Your task to perform on an android device: turn off improve location accuracy Image 0: 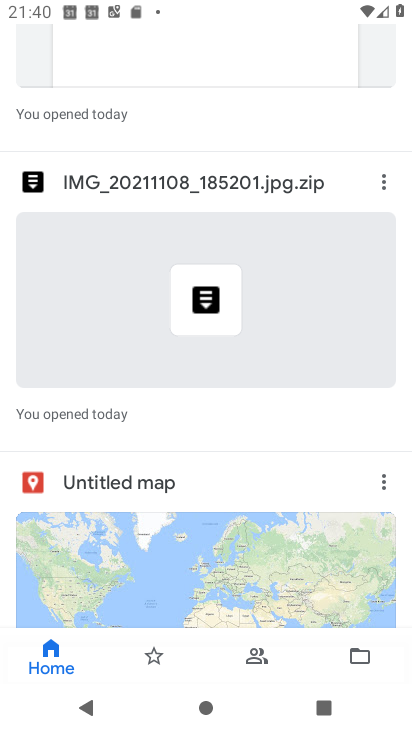
Step 0: drag from (184, 575) to (301, 177)
Your task to perform on an android device: turn off improve location accuracy Image 1: 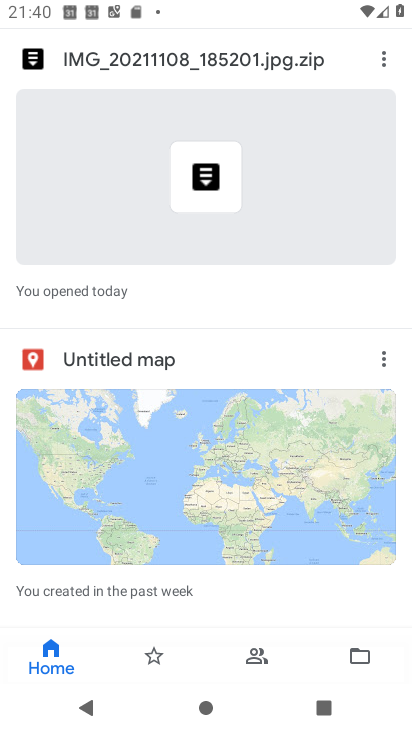
Step 1: drag from (171, 304) to (233, 665)
Your task to perform on an android device: turn off improve location accuracy Image 2: 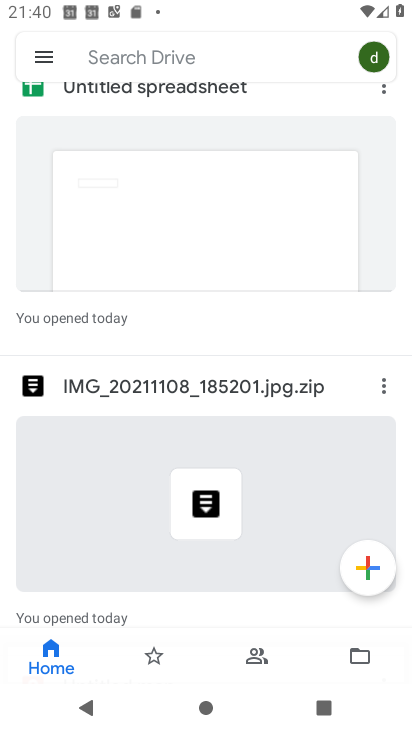
Step 2: press home button
Your task to perform on an android device: turn off improve location accuracy Image 3: 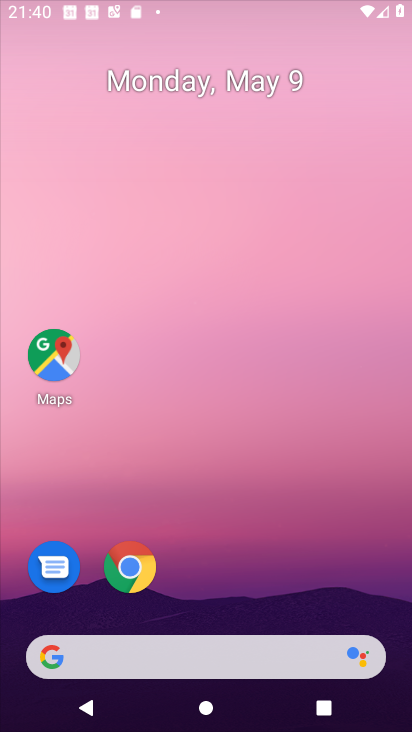
Step 3: drag from (211, 580) to (240, 155)
Your task to perform on an android device: turn off improve location accuracy Image 4: 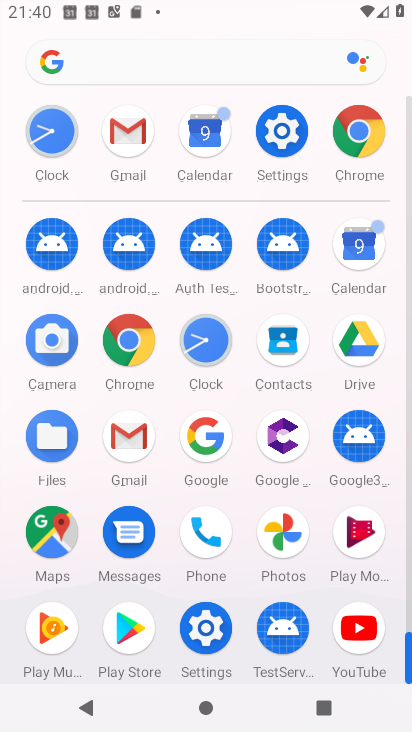
Step 4: click (290, 133)
Your task to perform on an android device: turn off improve location accuracy Image 5: 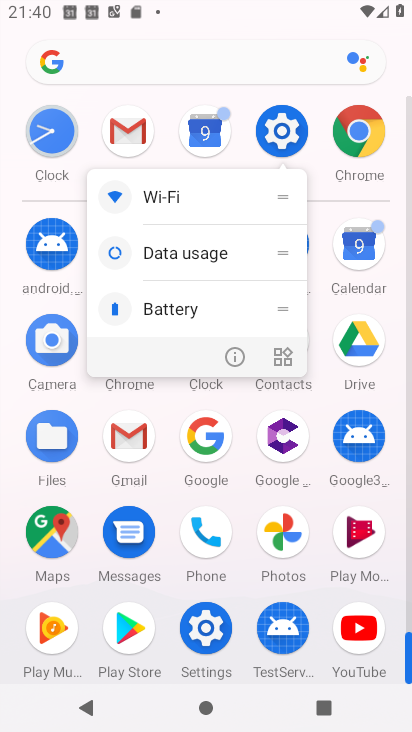
Step 5: click (246, 353)
Your task to perform on an android device: turn off improve location accuracy Image 6: 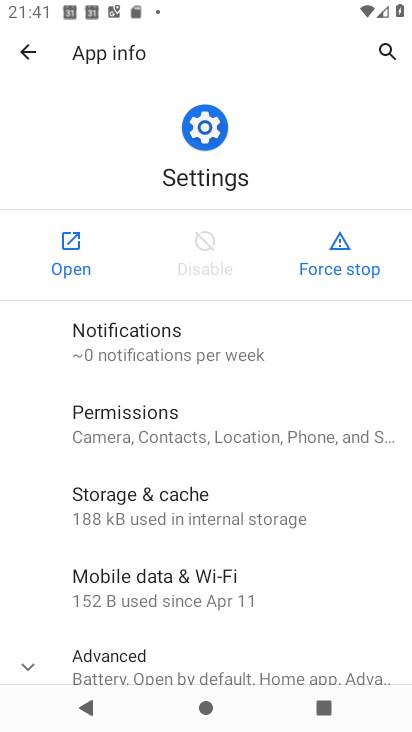
Step 6: drag from (244, 573) to (257, 226)
Your task to perform on an android device: turn off improve location accuracy Image 7: 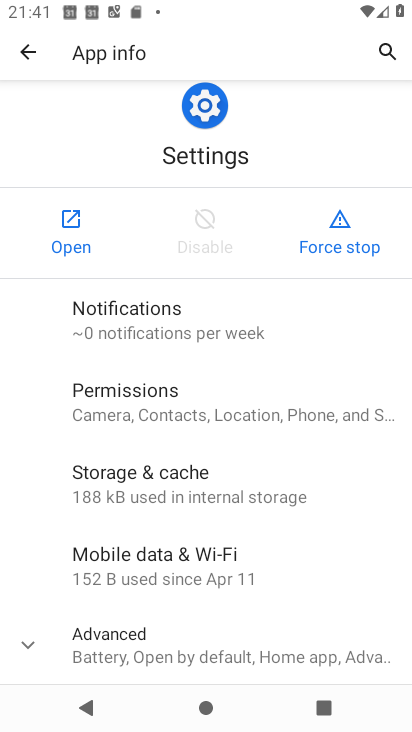
Step 7: click (64, 230)
Your task to perform on an android device: turn off improve location accuracy Image 8: 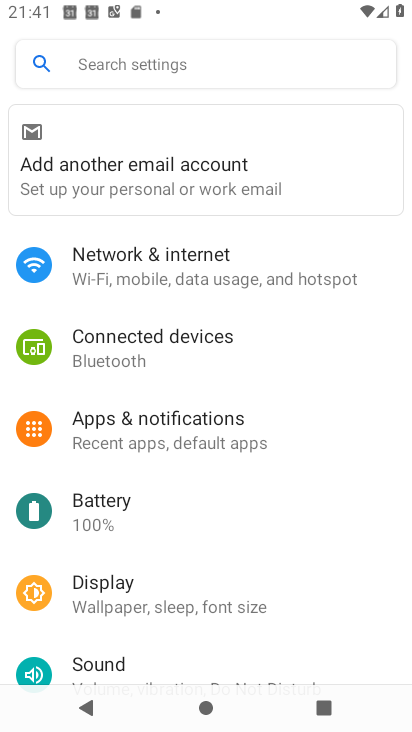
Step 8: drag from (245, 594) to (314, 139)
Your task to perform on an android device: turn off improve location accuracy Image 9: 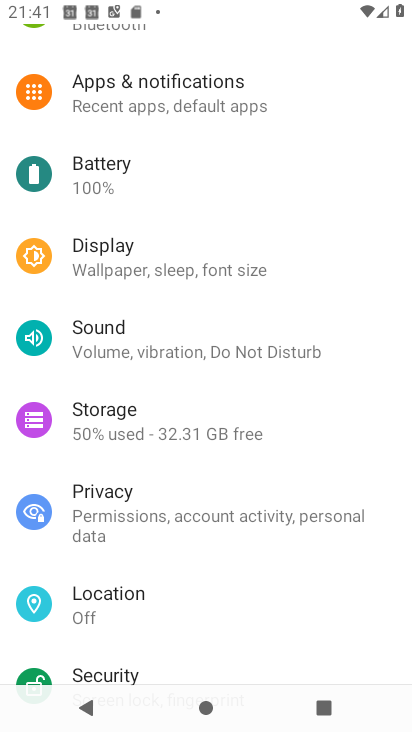
Step 9: drag from (174, 597) to (224, 289)
Your task to perform on an android device: turn off improve location accuracy Image 10: 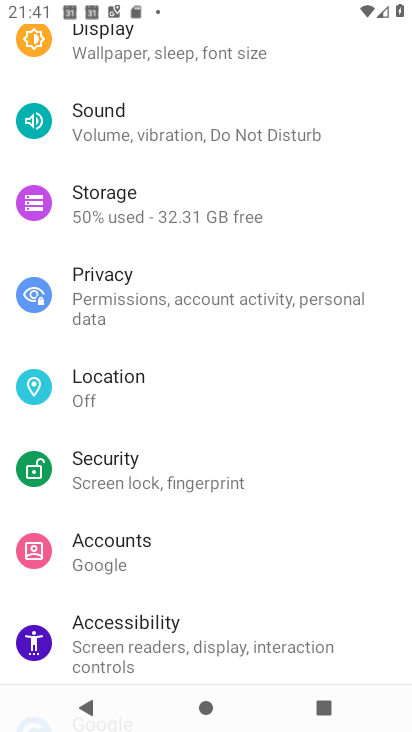
Step 10: click (124, 387)
Your task to perform on an android device: turn off improve location accuracy Image 11: 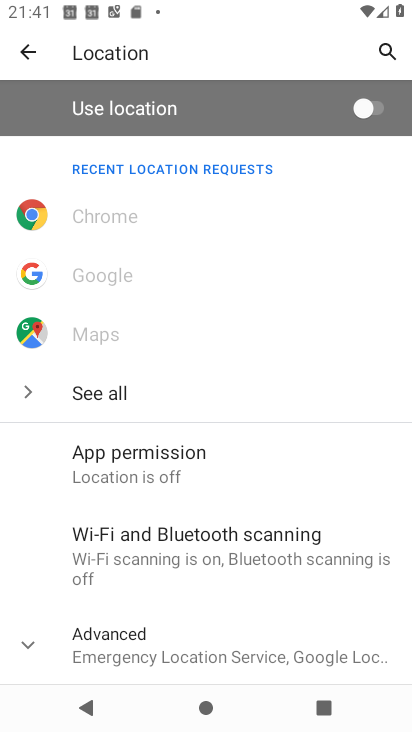
Step 11: drag from (123, 386) to (278, 75)
Your task to perform on an android device: turn off improve location accuracy Image 12: 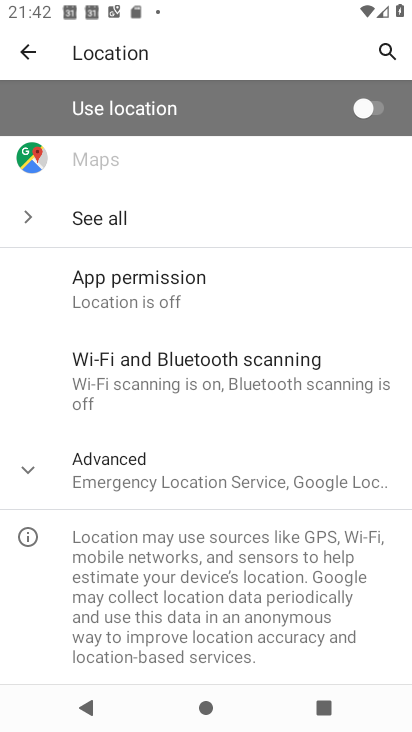
Step 12: click (157, 471)
Your task to perform on an android device: turn off improve location accuracy Image 13: 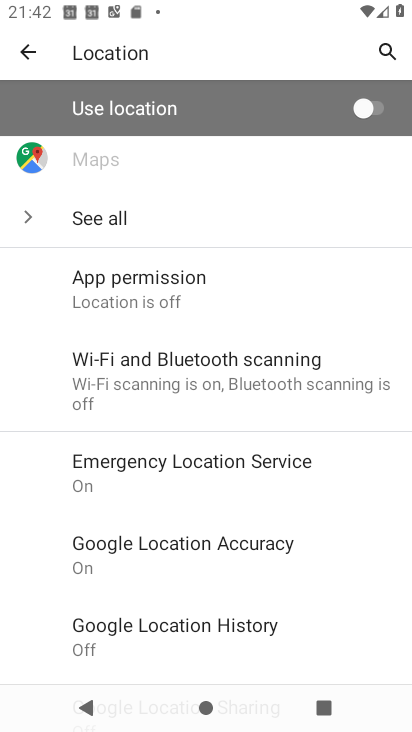
Step 13: click (220, 556)
Your task to perform on an android device: turn off improve location accuracy Image 14: 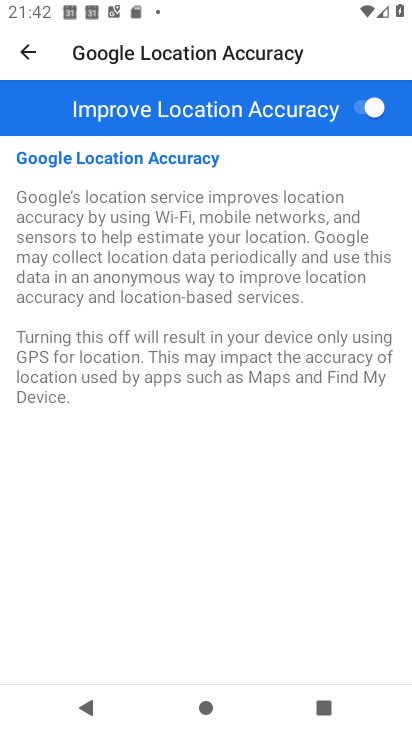
Step 14: click (361, 118)
Your task to perform on an android device: turn off improve location accuracy Image 15: 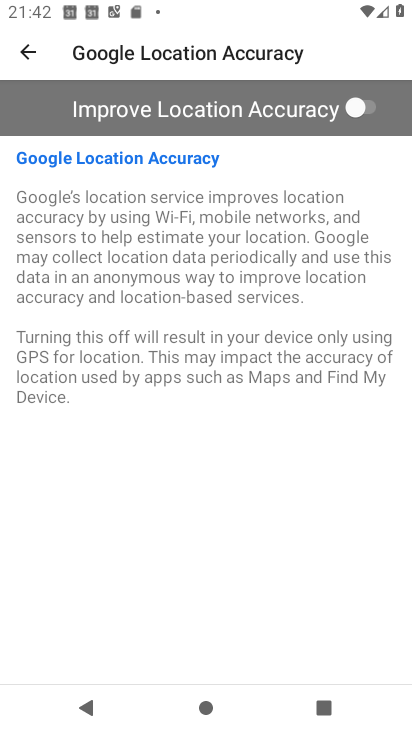
Step 15: task complete